Your task to perform on an android device: Search for pizza restaurants on Maps Image 0: 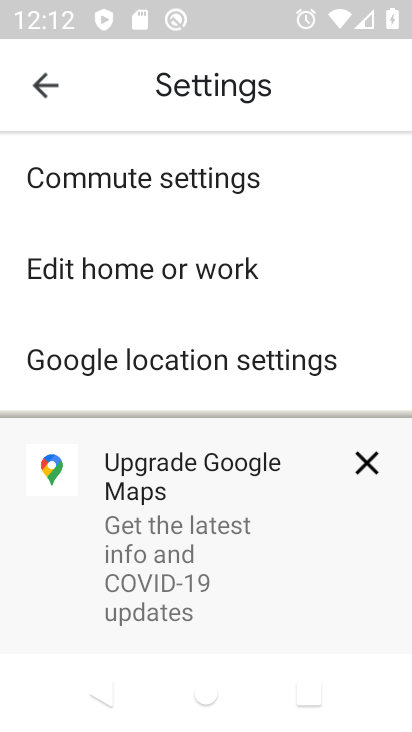
Step 0: press home button
Your task to perform on an android device: Search for pizza restaurants on Maps Image 1: 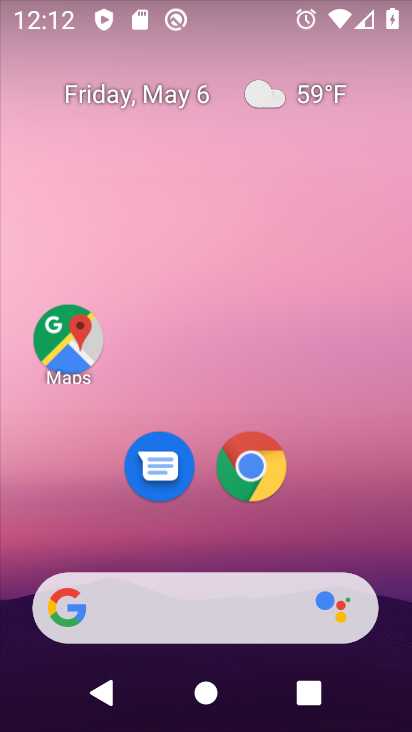
Step 1: click (65, 337)
Your task to perform on an android device: Search for pizza restaurants on Maps Image 2: 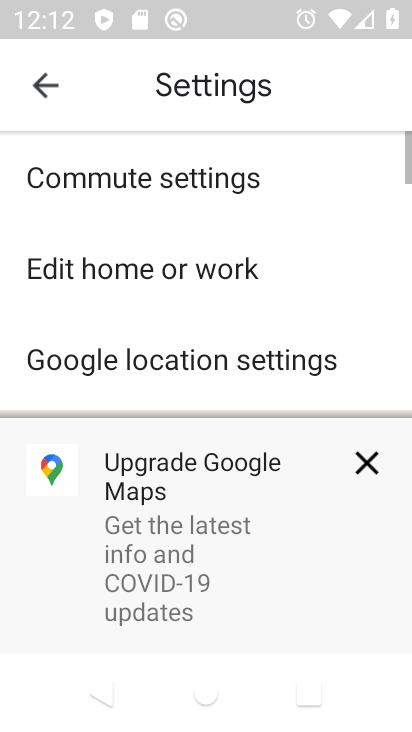
Step 2: click (35, 92)
Your task to perform on an android device: Search for pizza restaurants on Maps Image 3: 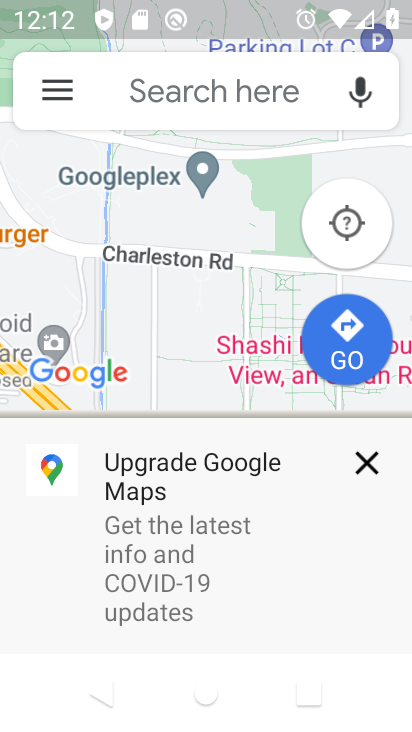
Step 3: click (371, 469)
Your task to perform on an android device: Search for pizza restaurants on Maps Image 4: 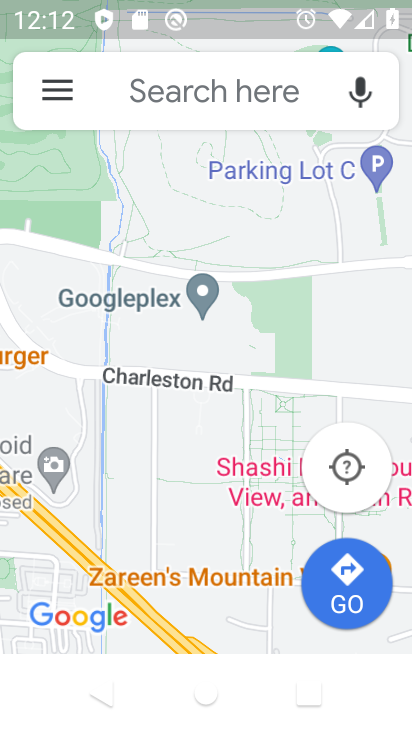
Step 4: click (176, 100)
Your task to perform on an android device: Search for pizza restaurants on Maps Image 5: 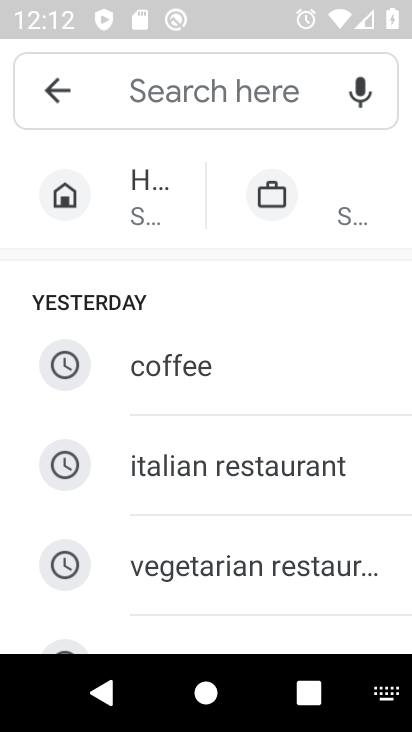
Step 5: type "pizza restaurants"
Your task to perform on an android device: Search for pizza restaurants on Maps Image 6: 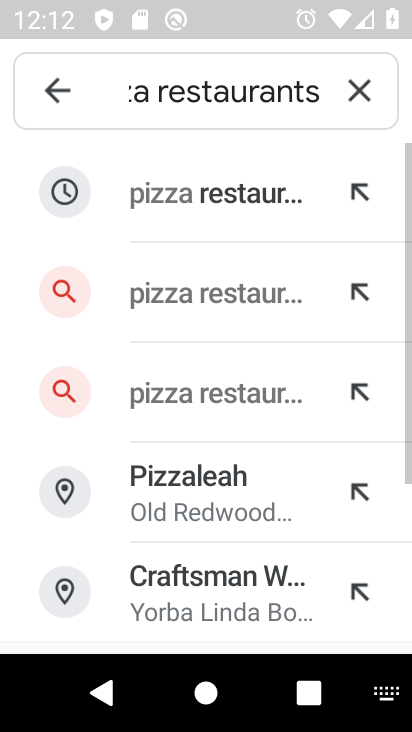
Step 6: click (183, 203)
Your task to perform on an android device: Search for pizza restaurants on Maps Image 7: 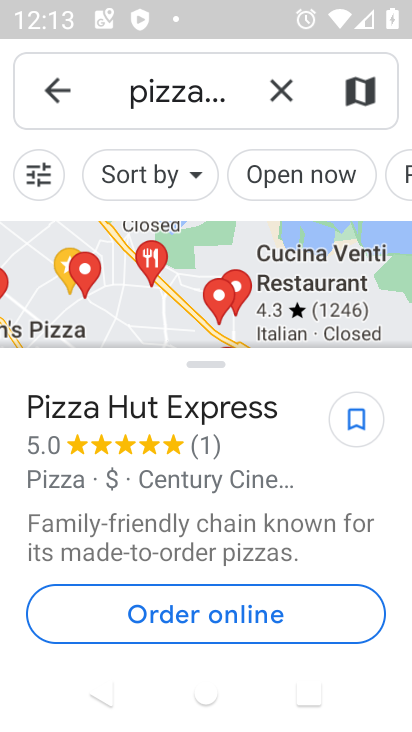
Step 7: task complete